Your task to perform on an android device: Open ESPN.com Image 0: 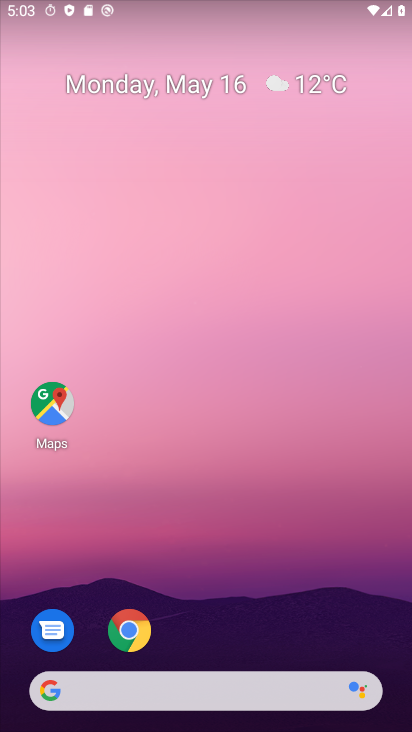
Step 0: click (134, 628)
Your task to perform on an android device: Open ESPN.com Image 1: 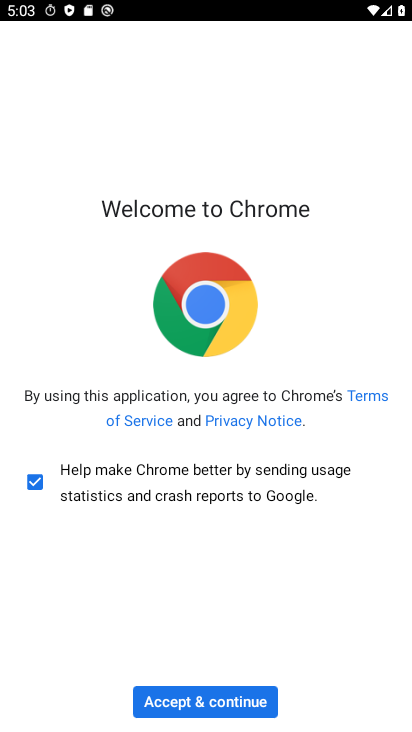
Step 1: click (208, 699)
Your task to perform on an android device: Open ESPN.com Image 2: 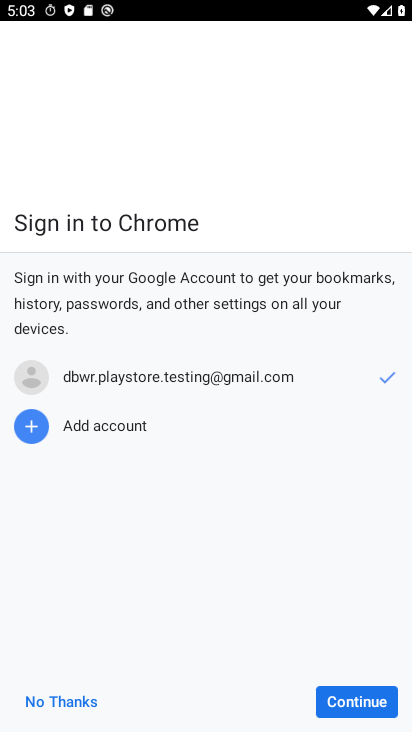
Step 2: click (346, 695)
Your task to perform on an android device: Open ESPN.com Image 3: 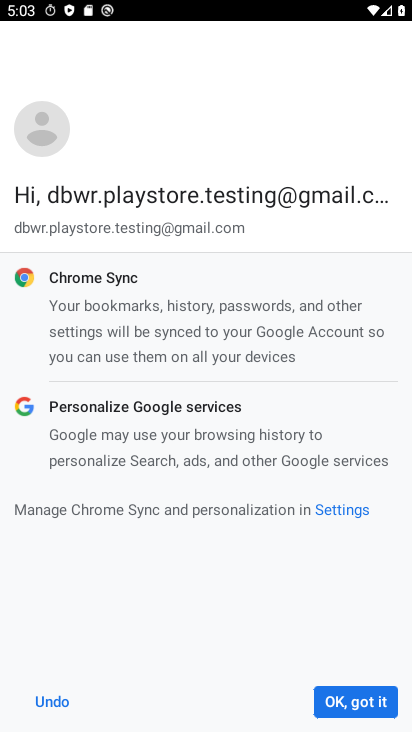
Step 3: click (343, 692)
Your task to perform on an android device: Open ESPN.com Image 4: 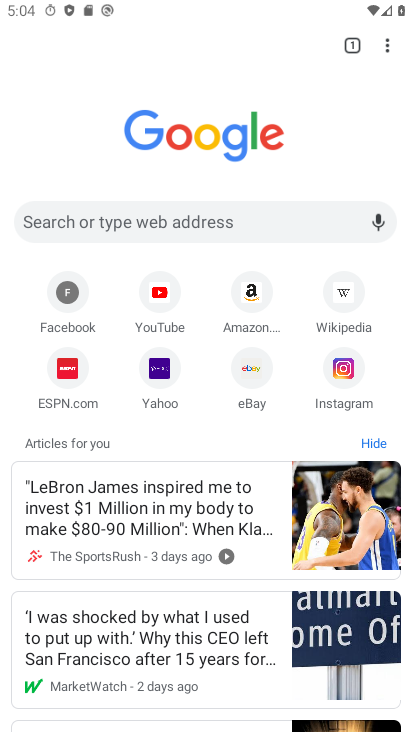
Step 4: click (75, 371)
Your task to perform on an android device: Open ESPN.com Image 5: 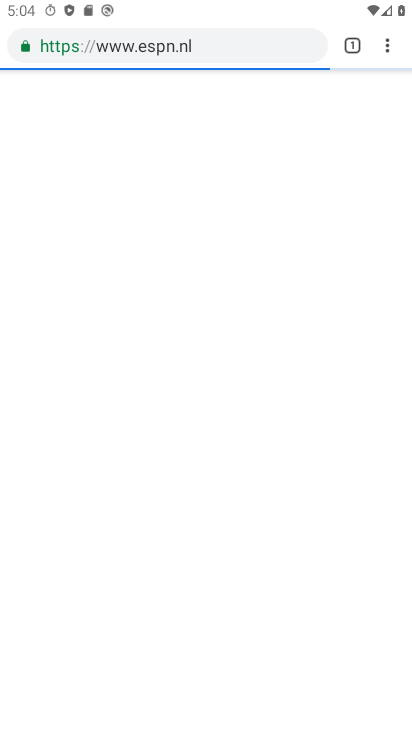
Step 5: task complete